Your task to perform on an android device: set the stopwatch Image 0: 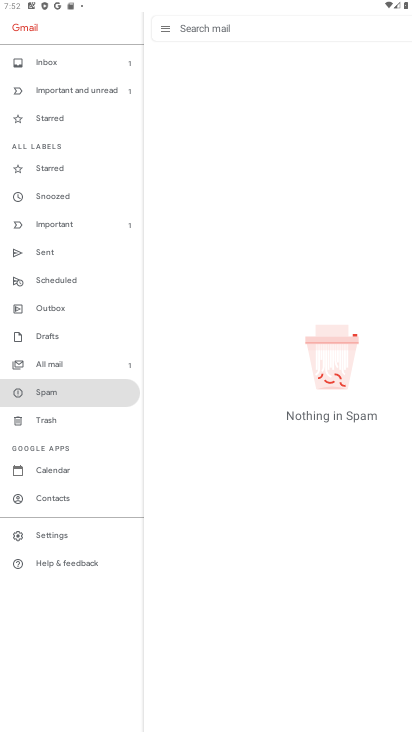
Step 0: press home button
Your task to perform on an android device: set the stopwatch Image 1: 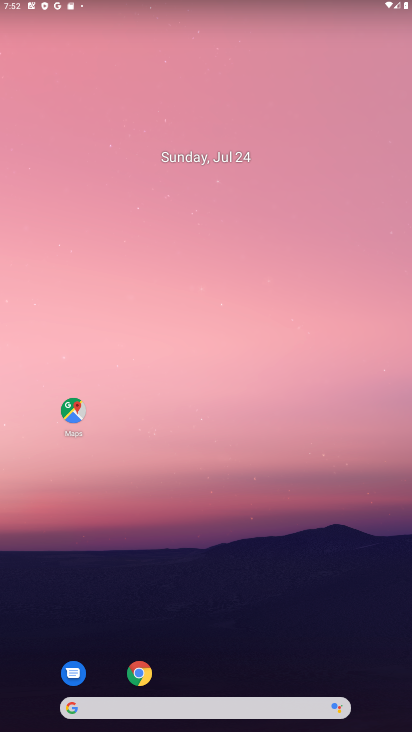
Step 1: drag from (7, 697) to (236, 27)
Your task to perform on an android device: set the stopwatch Image 2: 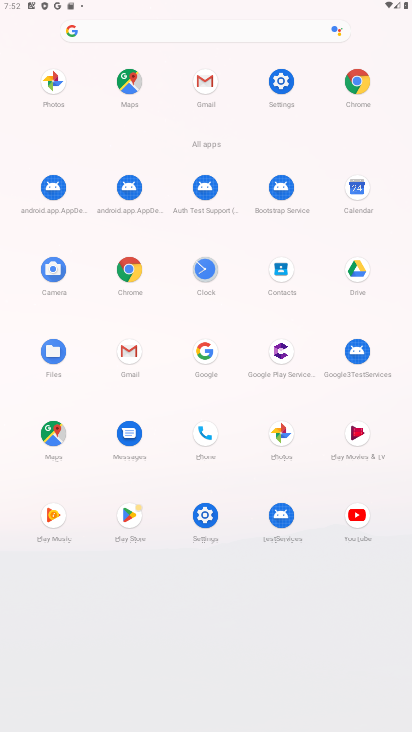
Step 2: click (205, 279)
Your task to perform on an android device: set the stopwatch Image 3: 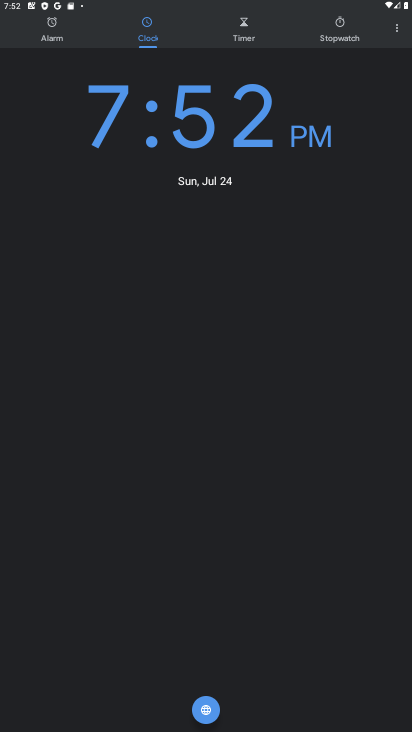
Step 3: click (330, 37)
Your task to perform on an android device: set the stopwatch Image 4: 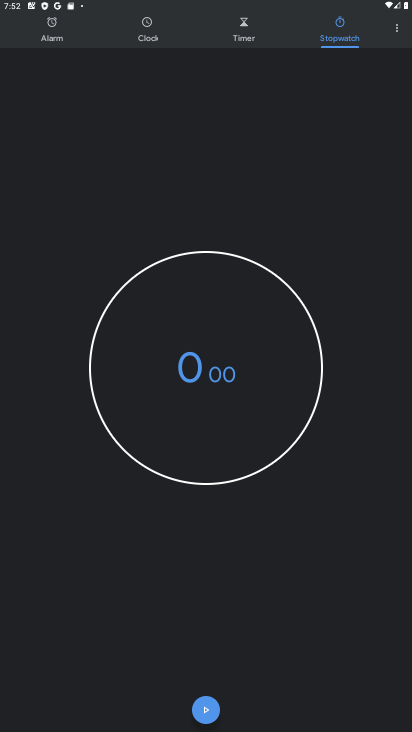
Step 4: click (191, 387)
Your task to perform on an android device: set the stopwatch Image 5: 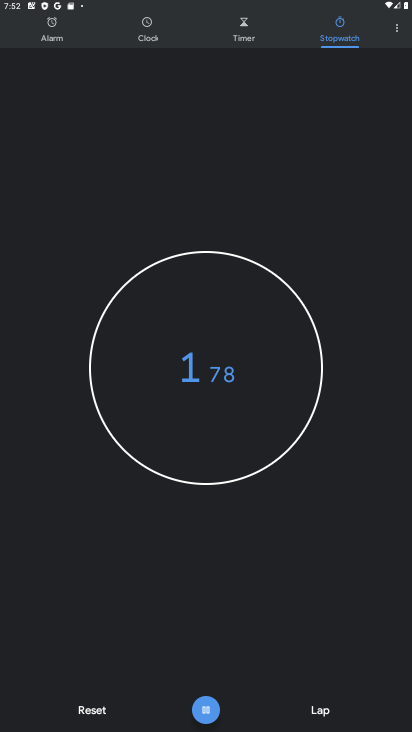
Step 5: click (180, 406)
Your task to perform on an android device: set the stopwatch Image 6: 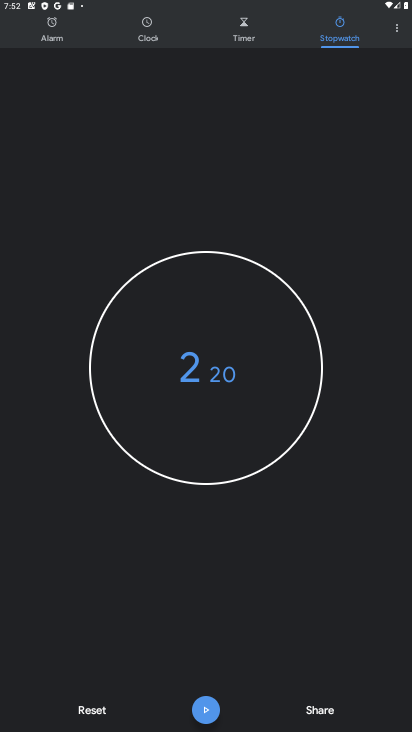
Step 6: task complete